Your task to perform on an android device: Open internet settings Image 0: 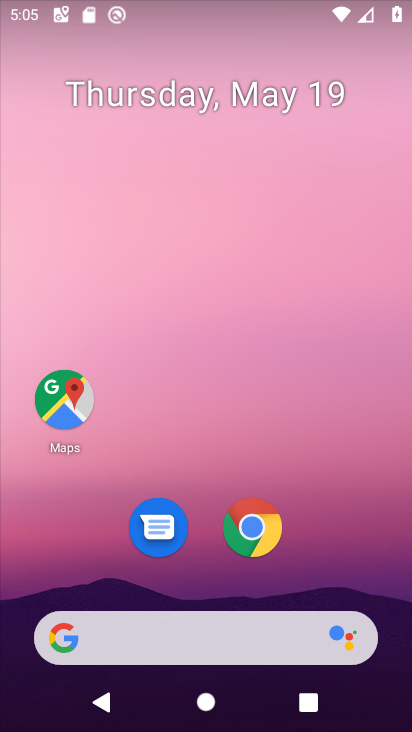
Step 0: drag from (343, 563) to (222, 63)
Your task to perform on an android device: Open internet settings Image 1: 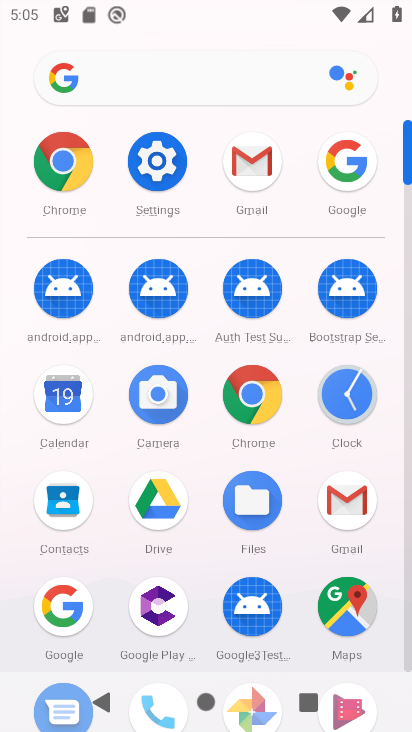
Step 1: click (149, 155)
Your task to perform on an android device: Open internet settings Image 2: 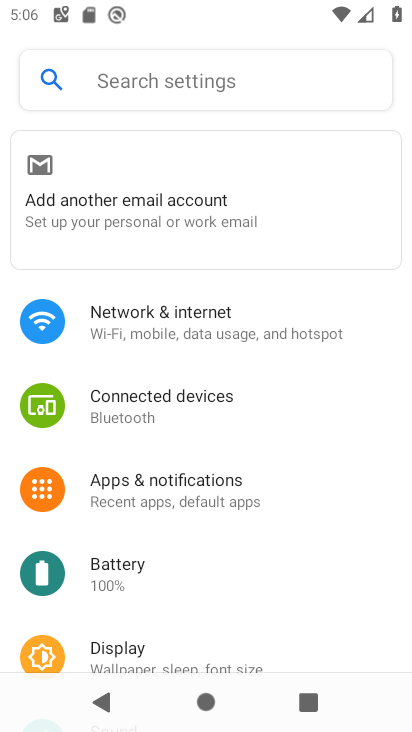
Step 2: click (194, 314)
Your task to perform on an android device: Open internet settings Image 3: 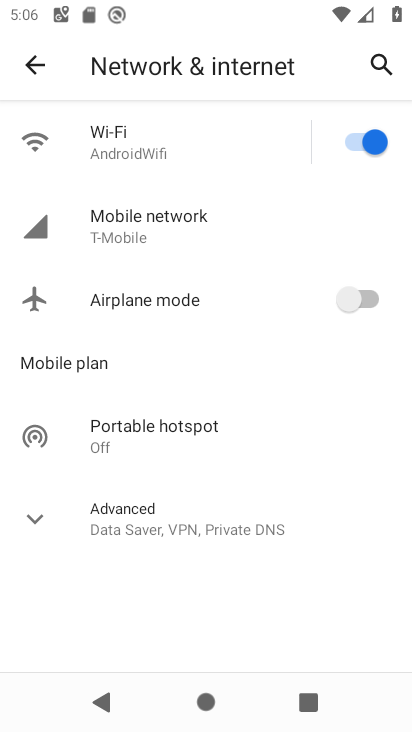
Step 3: task complete